Your task to perform on an android device: Do I have any events tomorrow? Image 0: 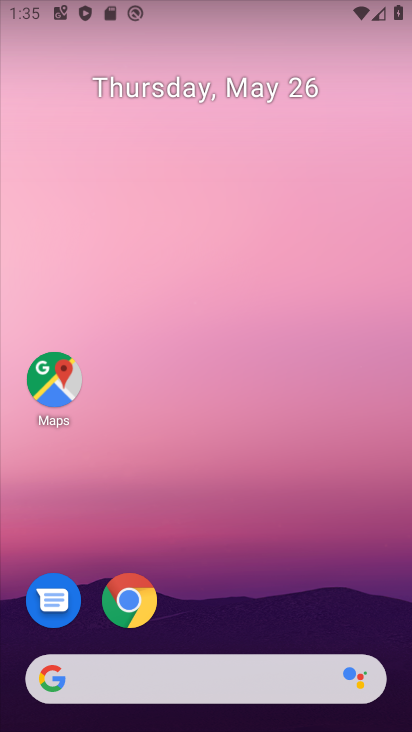
Step 0: drag from (308, 453) to (309, 67)
Your task to perform on an android device: Do I have any events tomorrow? Image 1: 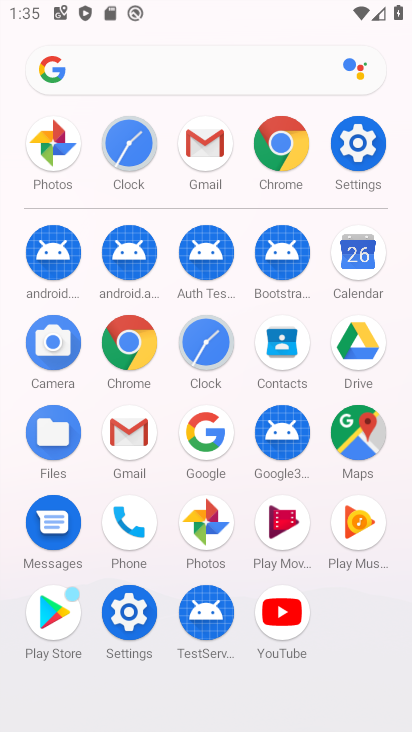
Step 1: click (351, 263)
Your task to perform on an android device: Do I have any events tomorrow? Image 2: 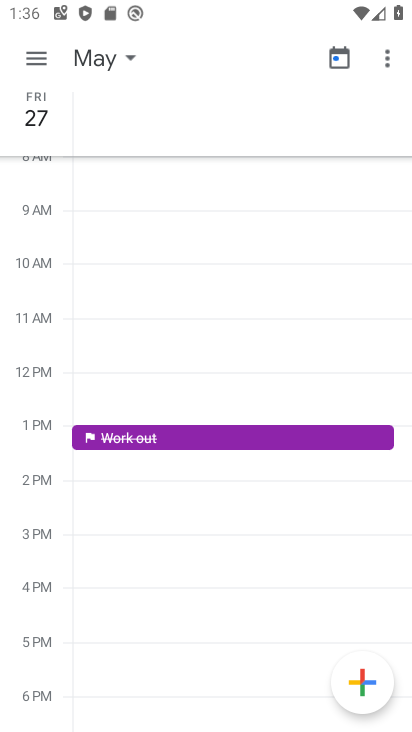
Step 2: click (20, 55)
Your task to perform on an android device: Do I have any events tomorrow? Image 3: 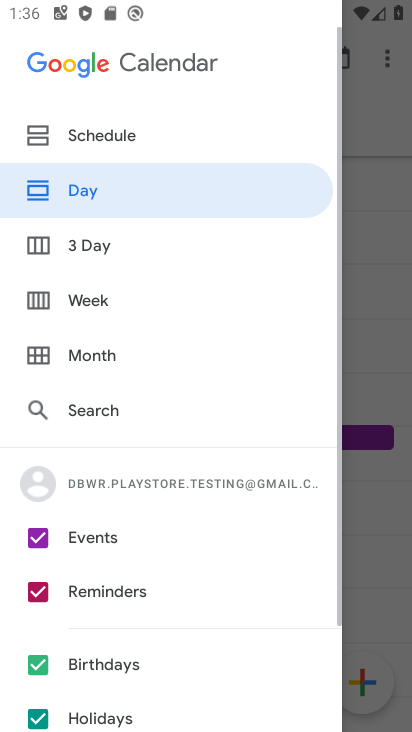
Step 3: click (77, 357)
Your task to perform on an android device: Do I have any events tomorrow? Image 4: 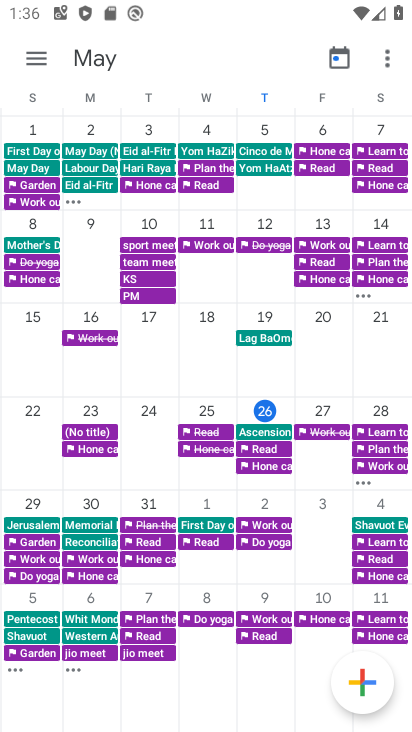
Step 4: click (298, 417)
Your task to perform on an android device: Do I have any events tomorrow? Image 5: 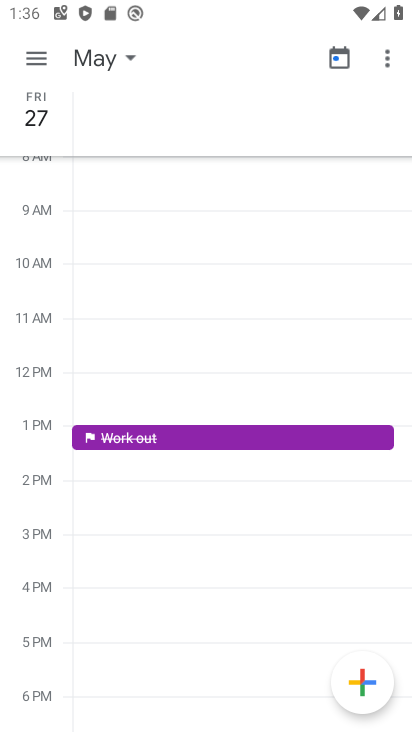
Step 5: task complete